Your task to perform on an android device: Go to display settings Image 0: 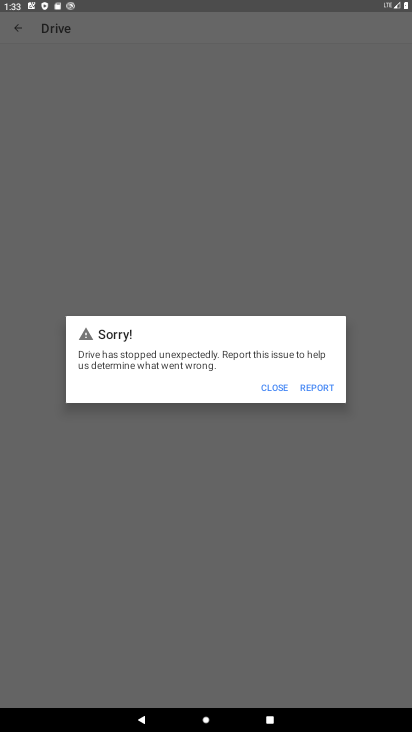
Step 0: press home button
Your task to perform on an android device: Go to display settings Image 1: 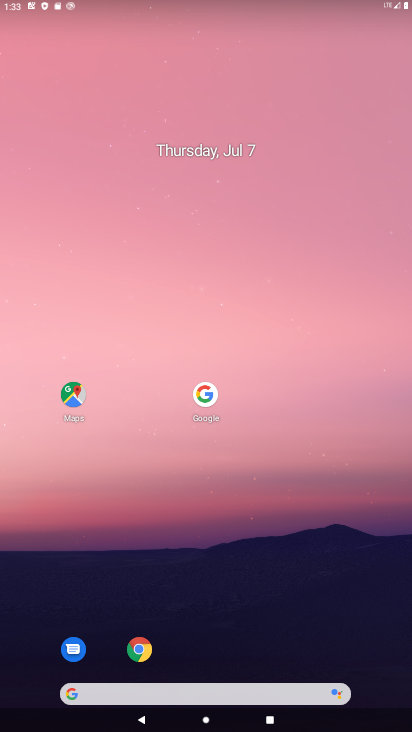
Step 1: drag from (217, 560) to (235, 59)
Your task to perform on an android device: Go to display settings Image 2: 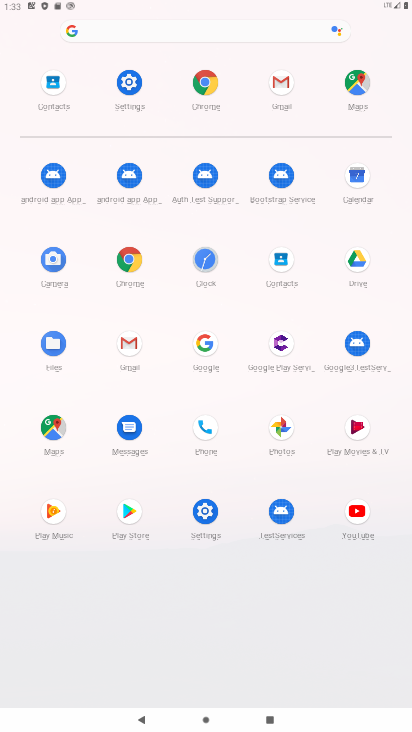
Step 2: click (210, 514)
Your task to perform on an android device: Go to display settings Image 3: 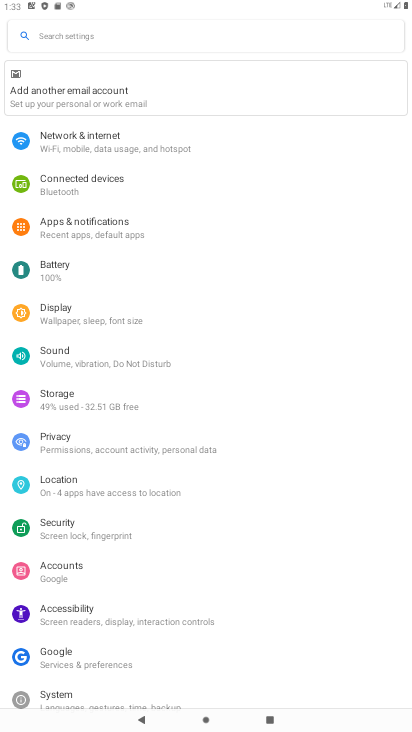
Step 3: click (43, 302)
Your task to perform on an android device: Go to display settings Image 4: 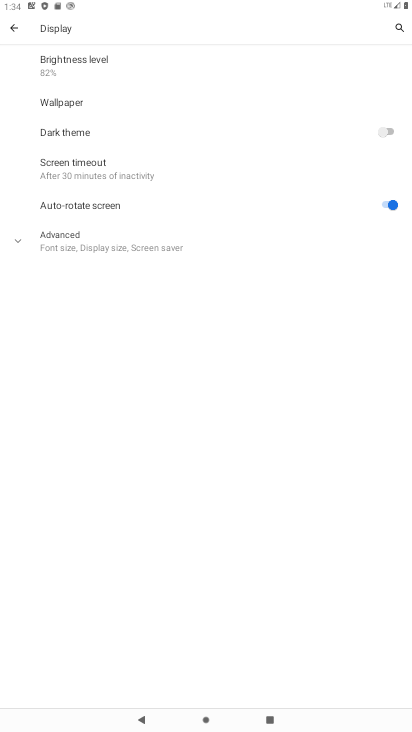
Step 4: task complete